Your task to perform on an android device: Open the stopwatch Image 0: 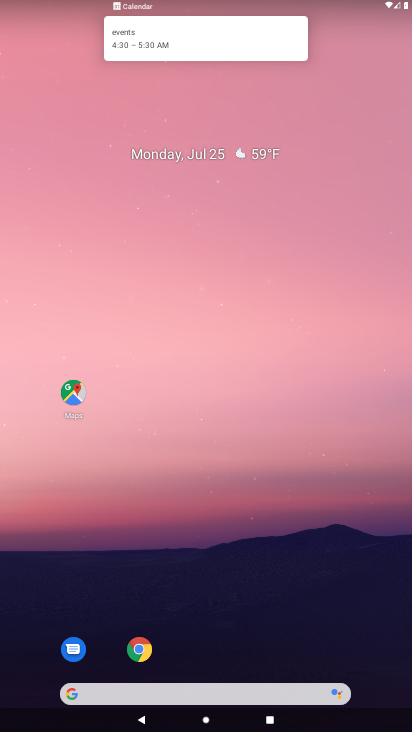
Step 0: drag from (270, 656) to (252, 126)
Your task to perform on an android device: Open the stopwatch Image 1: 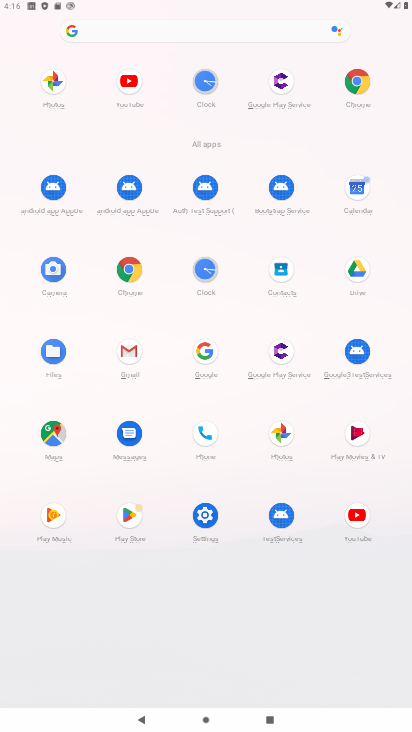
Step 1: click (208, 83)
Your task to perform on an android device: Open the stopwatch Image 2: 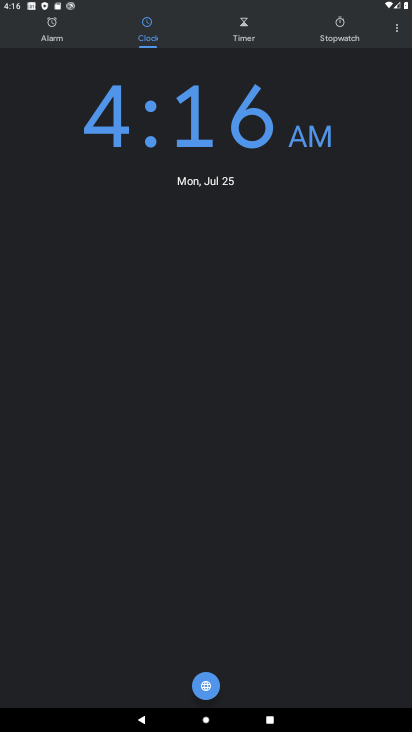
Step 2: click (345, 26)
Your task to perform on an android device: Open the stopwatch Image 3: 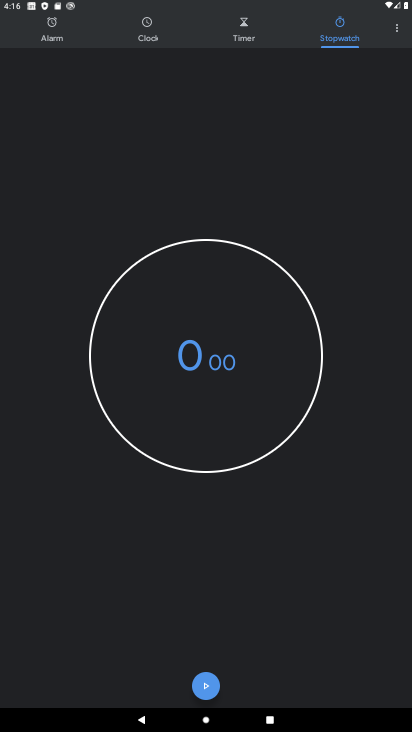
Step 3: click (212, 688)
Your task to perform on an android device: Open the stopwatch Image 4: 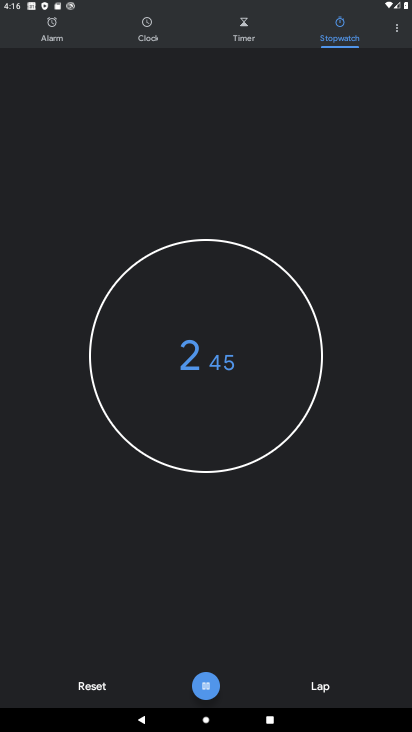
Step 4: task complete